Your task to perform on an android device: turn on javascript in the chrome app Image 0: 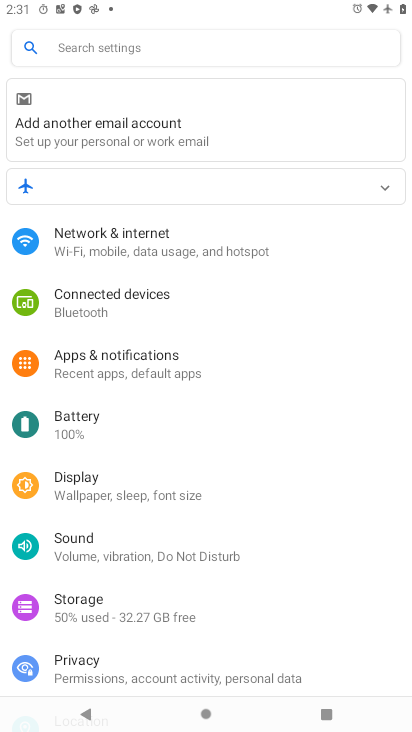
Step 0: press home button
Your task to perform on an android device: turn on javascript in the chrome app Image 1: 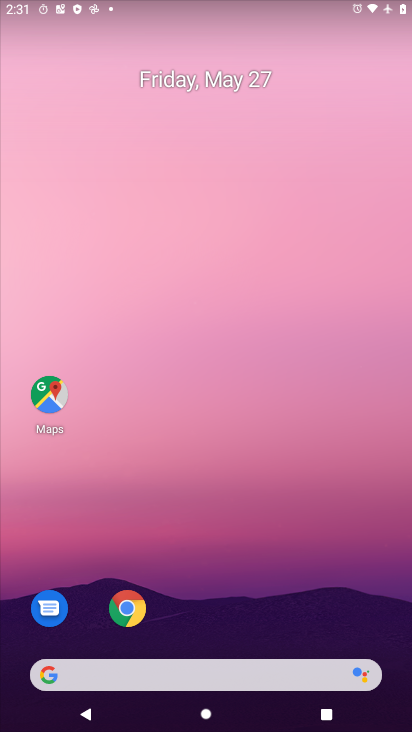
Step 1: click (131, 610)
Your task to perform on an android device: turn on javascript in the chrome app Image 2: 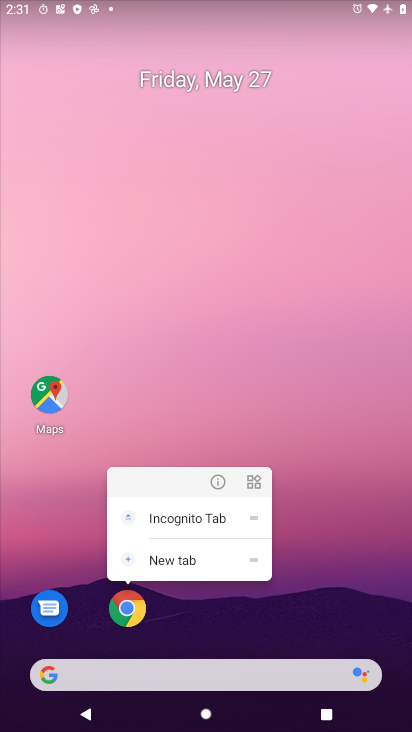
Step 2: click (127, 620)
Your task to perform on an android device: turn on javascript in the chrome app Image 3: 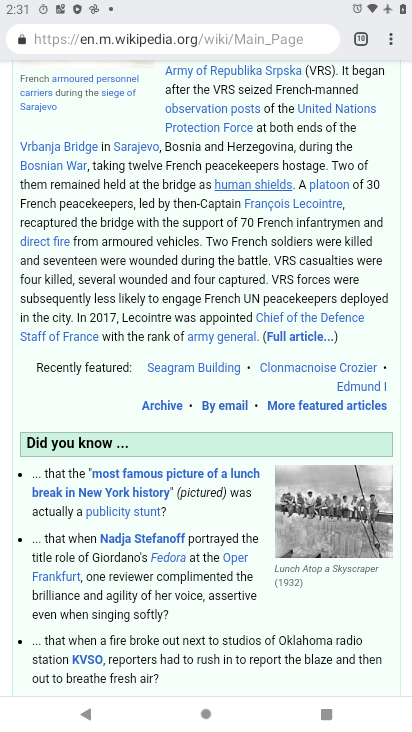
Step 3: drag from (391, 41) to (277, 473)
Your task to perform on an android device: turn on javascript in the chrome app Image 4: 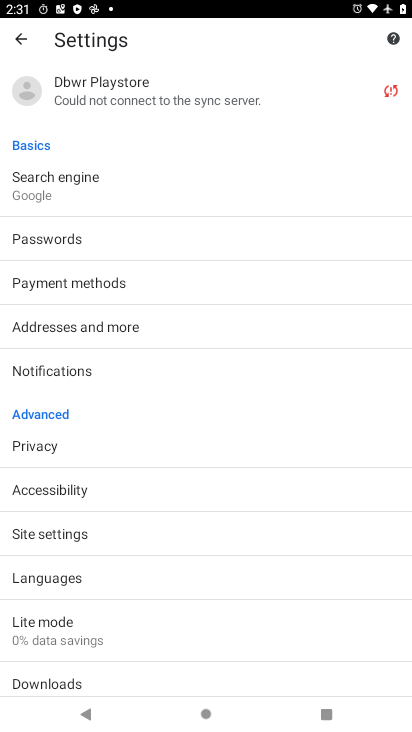
Step 4: click (63, 537)
Your task to perform on an android device: turn on javascript in the chrome app Image 5: 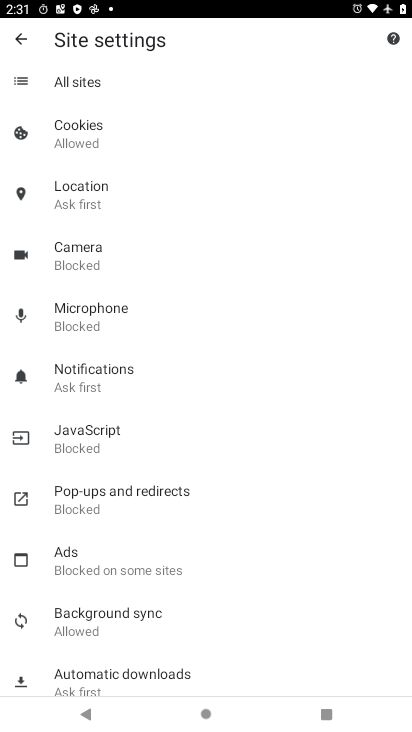
Step 5: click (97, 427)
Your task to perform on an android device: turn on javascript in the chrome app Image 6: 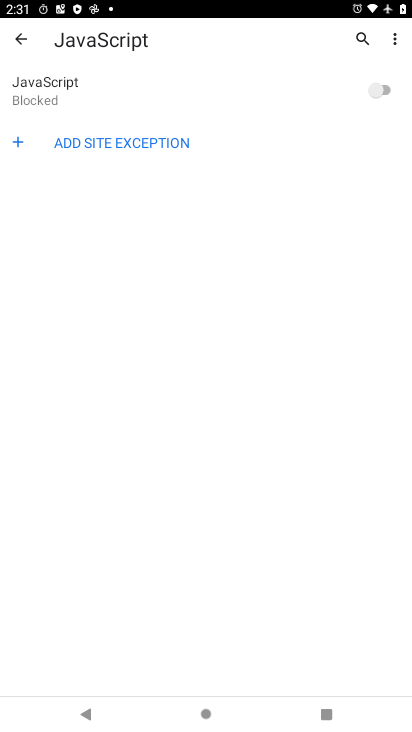
Step 6: click (386, 88)
Your task to perform on an android device: turn on javascript in the chrome app Image 7: 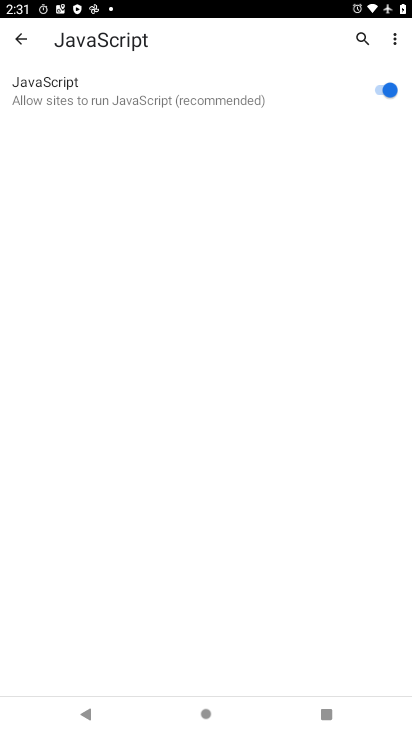
Step 7: task complete